Your task to perform on an android device: Is it going to rain tomorrow? Image 0: 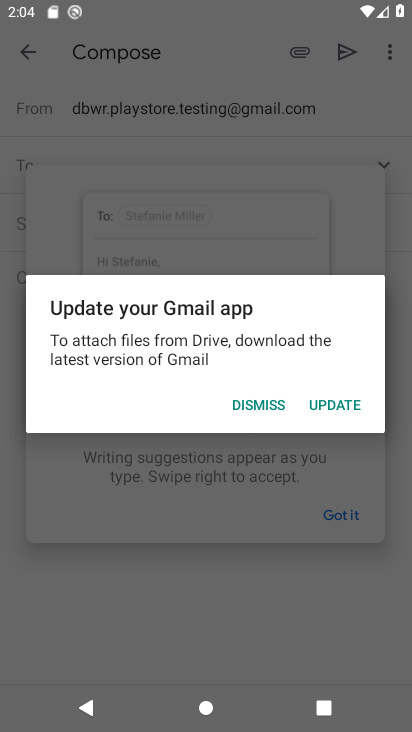
Step 0: press back button
Your task to perform on an android device: Is it going to rain tomorrow? Image 1: 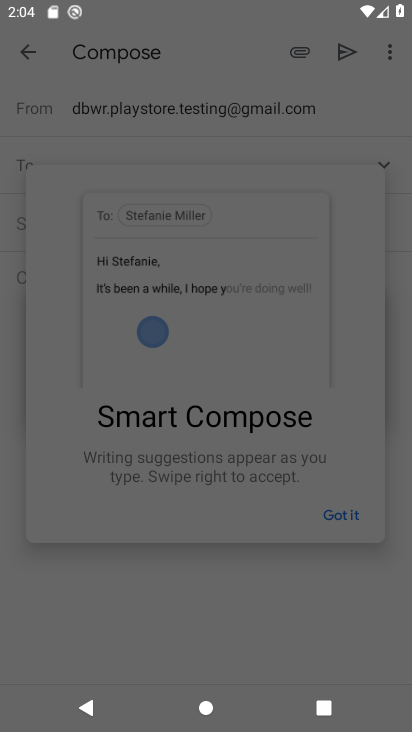
Step 1: press back button
Your task to perform on an android device: Is it going to rain tomorrow? Image 2: 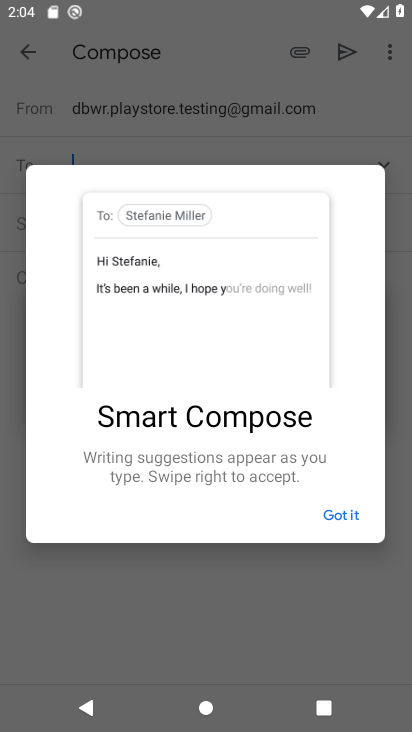
Step 2: press home button
Your task to perform on an android device: Is it going to rain tomorrow? Image 3: 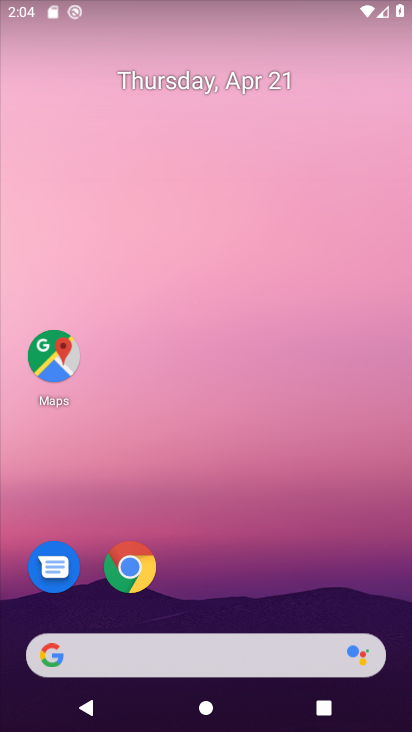
Step 3: click (152, 652)
Your task to perform on an android device: Is it going to rain tomorrow? Image 4: 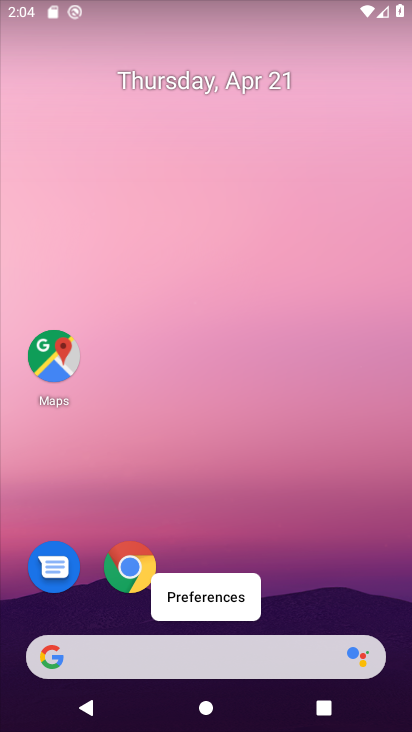
Step 4: click (133, 650)
Your task to perform on an android device: Is it going to rain tomorrow? Image 5: 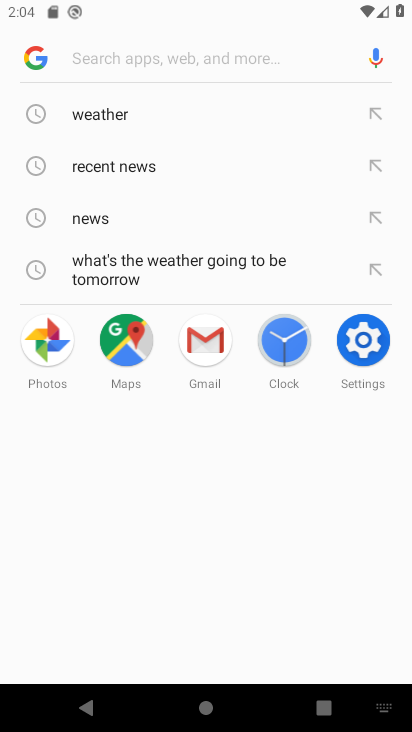
Step 5: type "Is it going to rain tomorrow?"
Your task to perform on an android device: Is it going to rain tomorrow? Image 6: 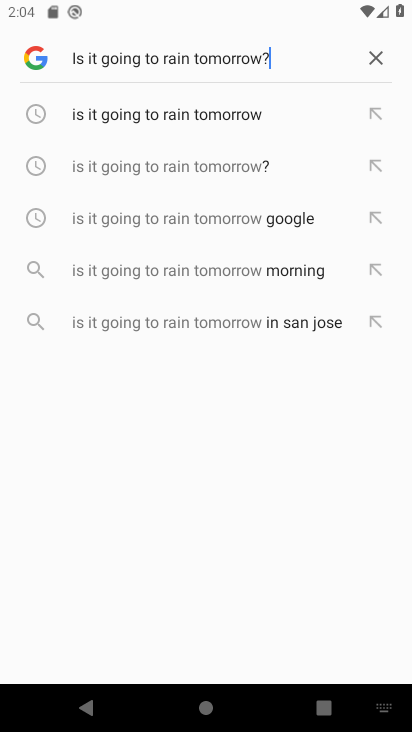
Step 6: type ""
Your task to perform on an android device: Is it going to rain tomorrow? Image 7: 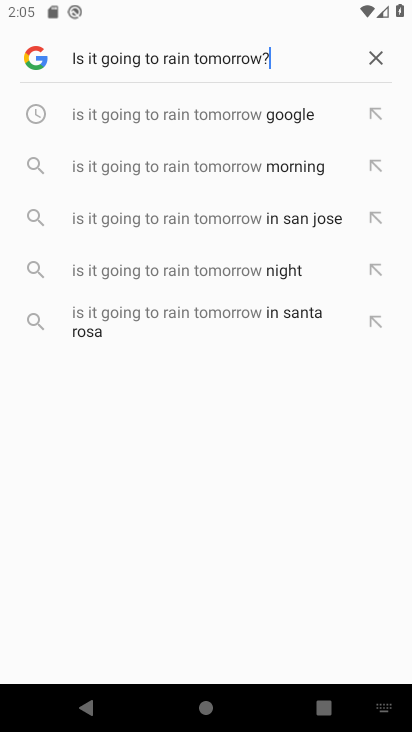
Step 7: click (206, 110)
Your task to perform on an android device: Is it going to rain tomorrow? Image 8: 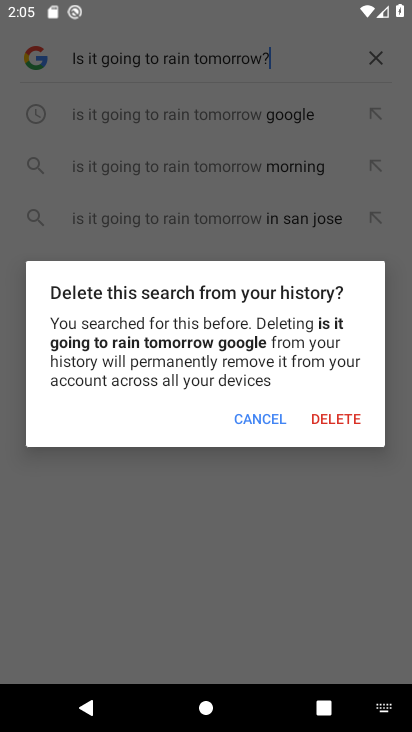
Step 8: click (219, 109)
Your task to perform on an android device: Is it going to rain tomorrow? Image 9: 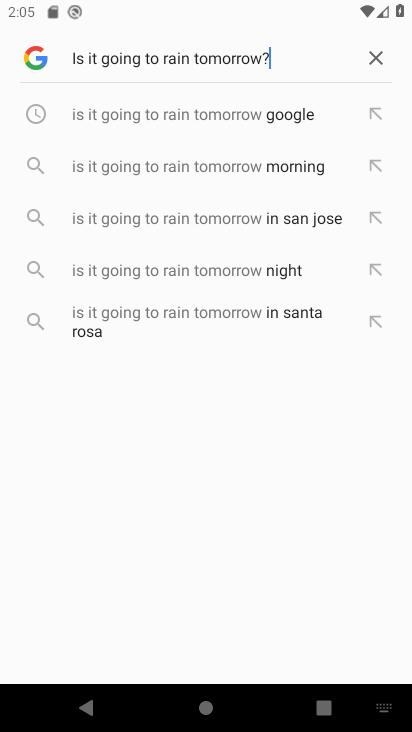
Step 9: click (251, 422)
Your task to perform on an android device: Is it going to rain tomorrow? Image 10: 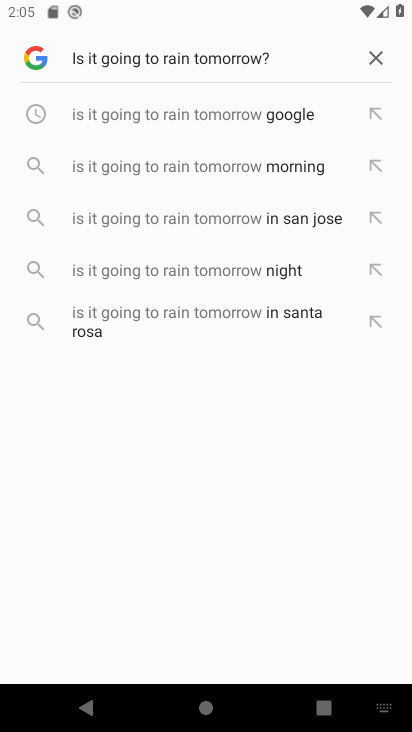
Step 10: click (161, 109)
Your task to perform on an android device: Is it going to rain tomorrow? Image 11: 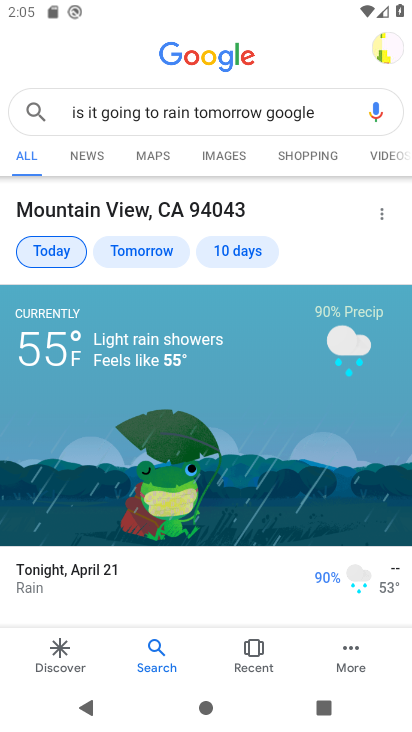
Step 11: task complete